Your task to perform on an android device: Open calendar and show me the fourth week of next month Image 0: 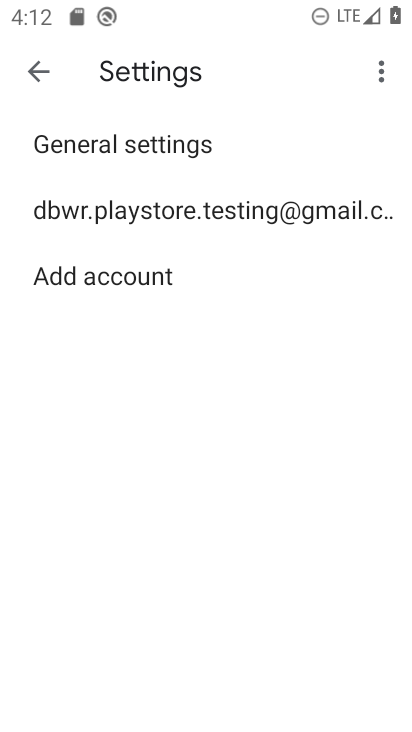
Step 0: press home button
Your task to perform on an android device: Open calendar and show me the fourth week of next month Image 1: 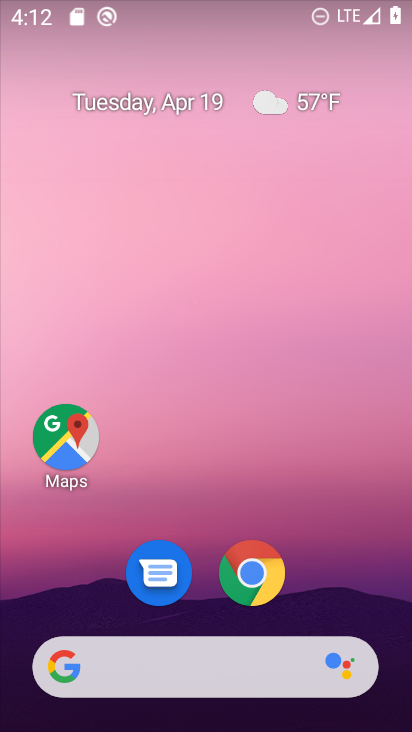
Step 1: drag from (338, 575) to (359, 26)
Your task to perform on an android device: Open calendar and show me the fourth week of next month Image 2: 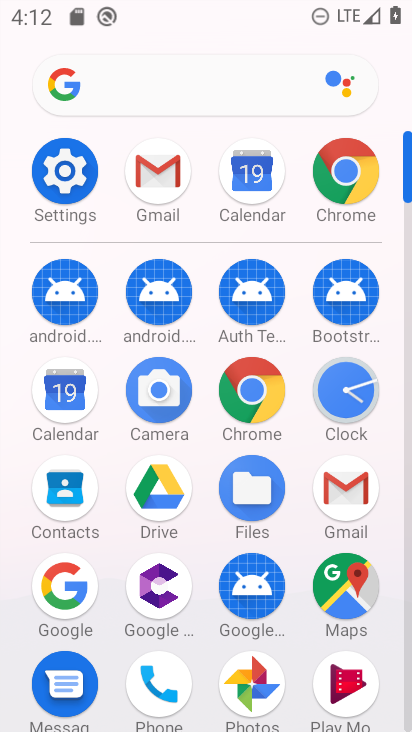
Step 2: click (51, 403)
Your task to perform on an android device: Open calendar and show me the fourth week of next month Image 3: 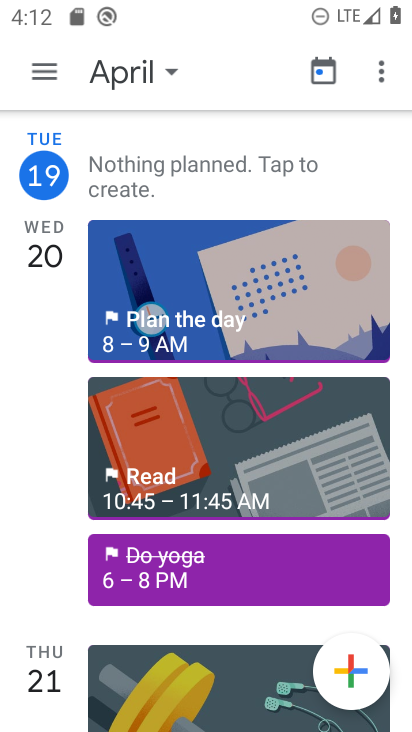
Step 3: click (169, 71)
Your task to perform on an android device: Open calendar and show me the fourth week of next month Image 4: 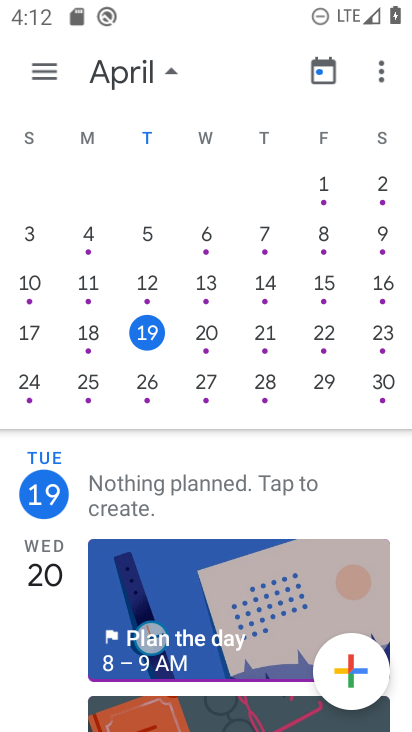
Step 4: drag from (340, 234) to (28, 298)
Your task to perform on an android device: Open calendar and show me the fourth week of next month Image 5: 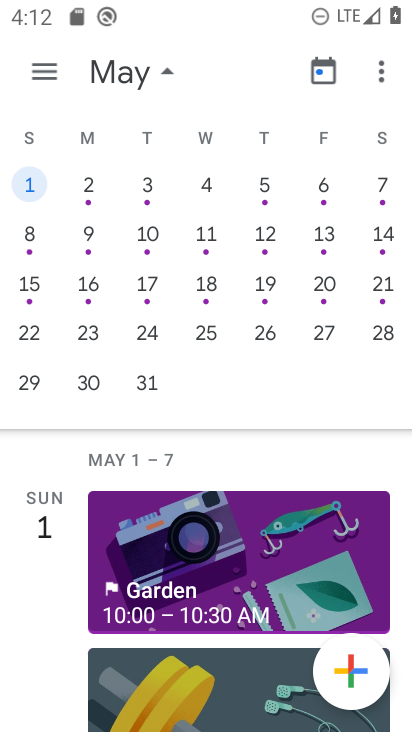
Step 5: click (36, 75)
Your task to perform on an android device: Open calendar and show me the fourth week of next month Image 6: 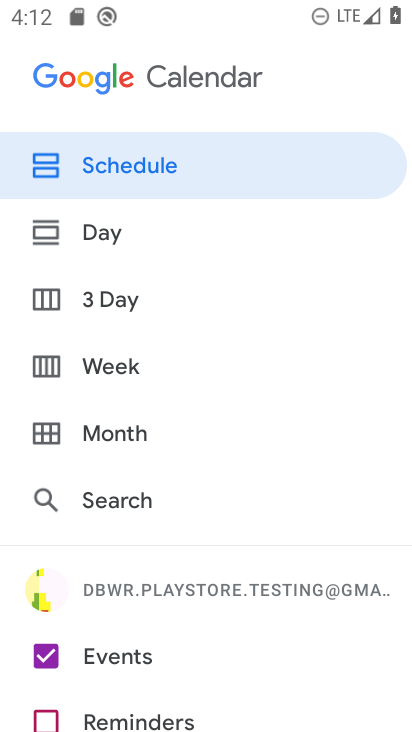
Step 6: click (84, 370)
Your task to perform on an android device: Open calendar and show me the fourth week of next month Image 7: 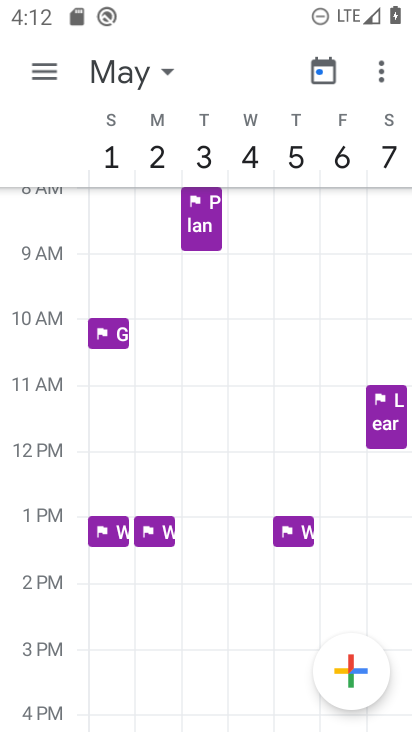
Step 7: task complete